Your task to perform on an android device: Search for sushi restaurants on Maps Image 0: 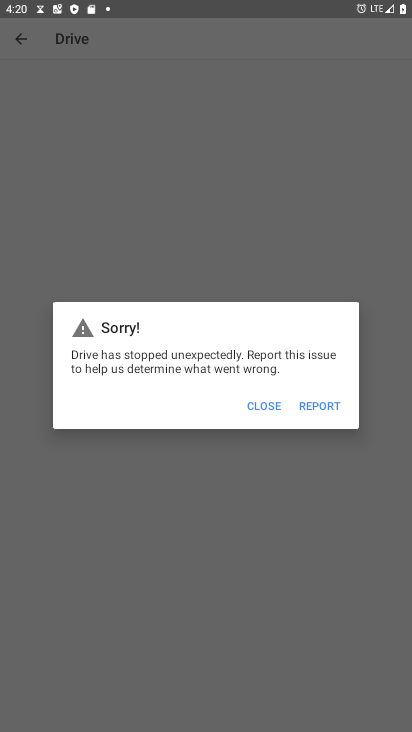
Step 0: press home button
Your task to perform on an android device: Search for sushi restaurants on Maps Image 1: 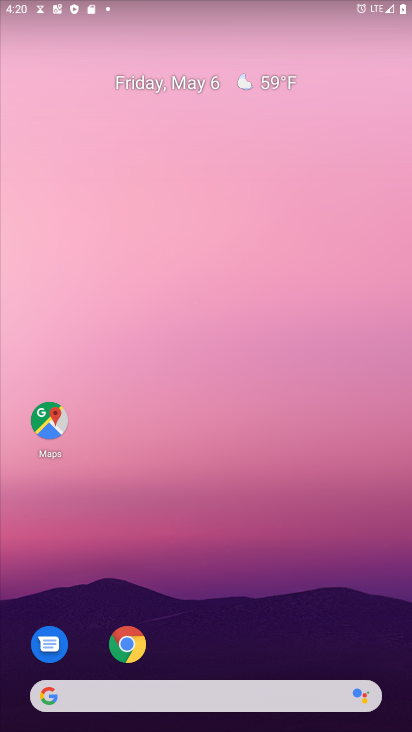
Step 1: click (48, 420)
Your task to perform on an android device: Search for sushi restaurants on Maps Image 2: 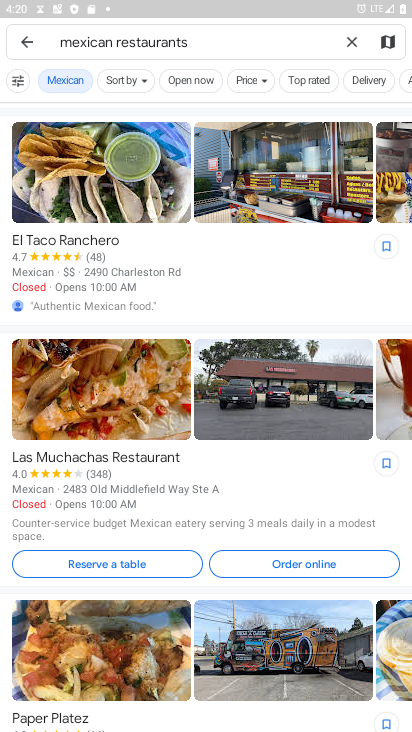
Step 2: click (350, 43)
Your task to perform on an android device: Search for sushi restaurants on Maps Image 3: 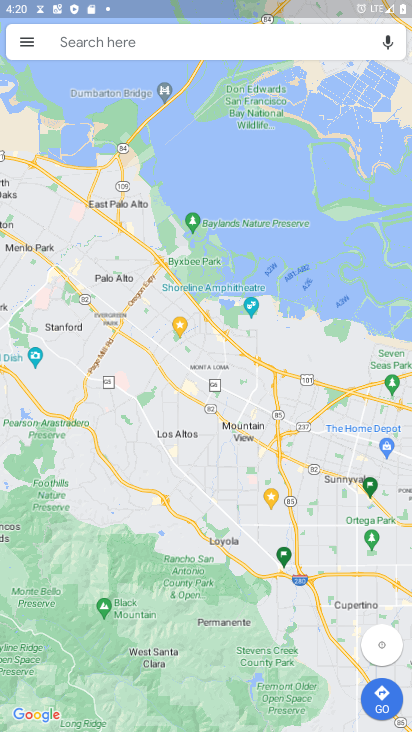
Step 3: click (292, 46)
Your task to perform on an android device: Search for sushi restaurants on Maps Image 4: 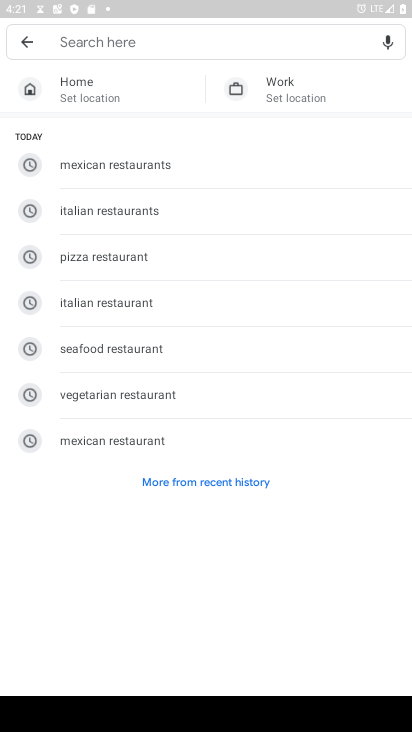
Step 4: type "sushi restaurants"
Your task to perform on an android device: Search for sushi restaurants on Maps Image 5: 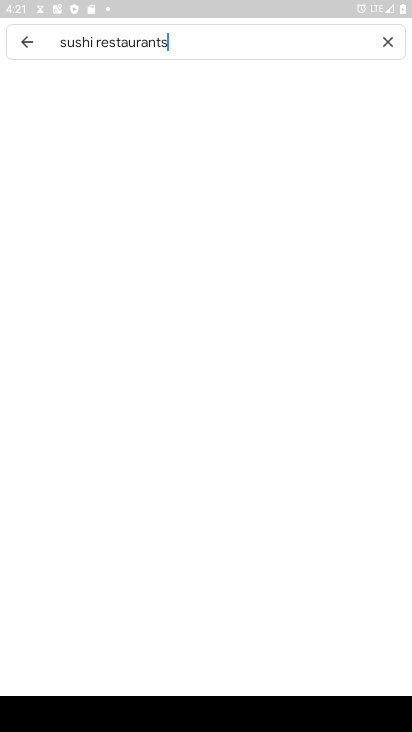
Step 5: type ""
Your task to perform on an android device: Search for sushi restaurants on Maps Image 6: 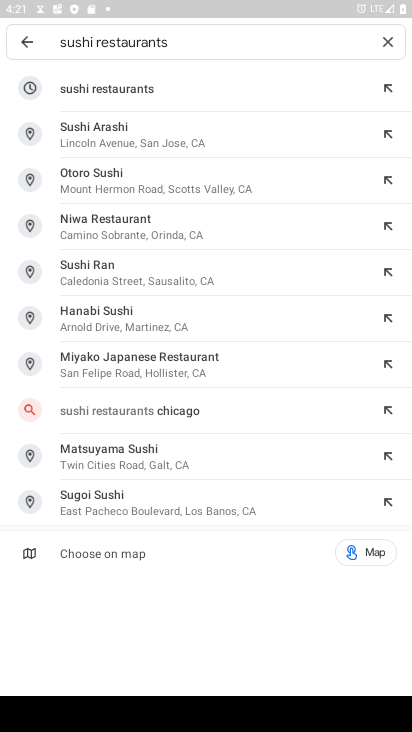
Step 6: click (127, 89)
Your task to perform on an android device: Search for sushi restaurants on Maps Image 7: 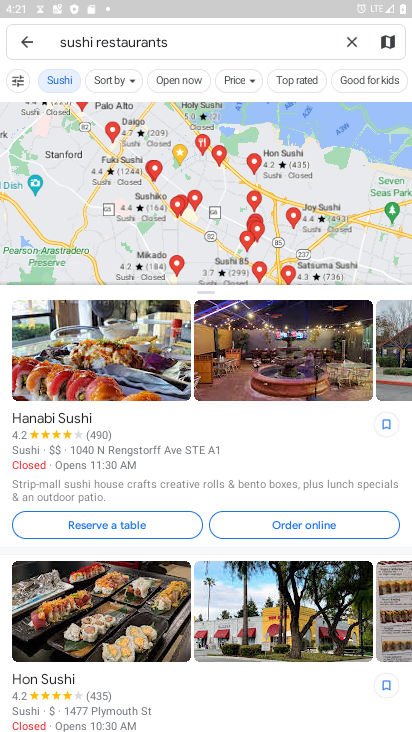
Step 7: task complete